Your task to perform on an android device: Do I have any events this weekend? Image 0: 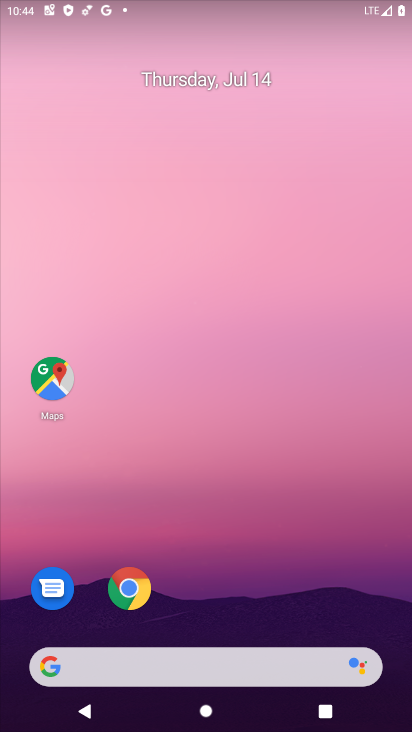
Step 0: click (149, 664)
Your task to perform on an android device: Do I have any events this weekend? Image 1: 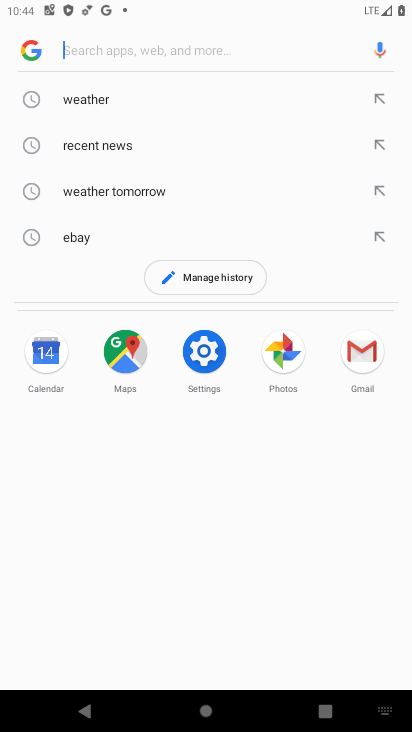
Step 1: click (45, 352)
Your task to perform on an android device: Do I have any events this weekend? Image 2: 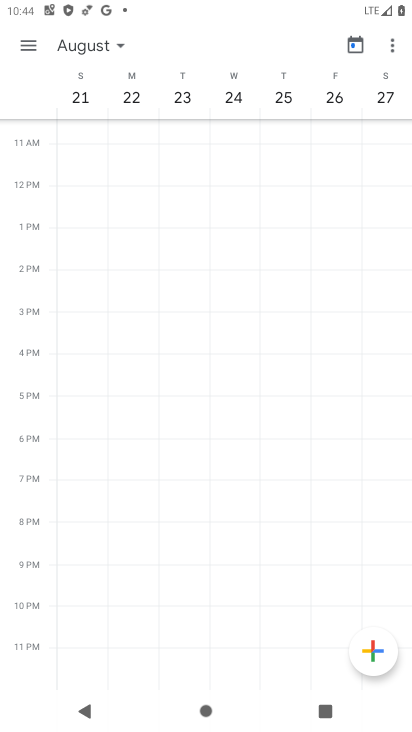
Step 2: click (75, 41)
Your task to perform on an android device: Do I have any events this weekend? Image 3: 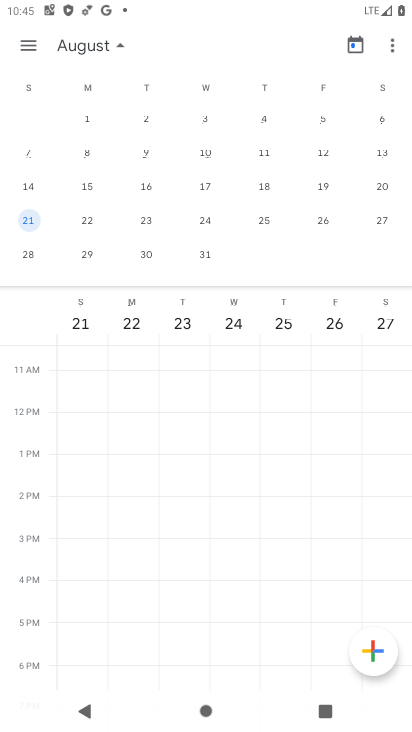
Step 3: drag from (82, 191) to (405, 158)
Your task to perform on an android device: Do I have any events this weekend? Image 4: 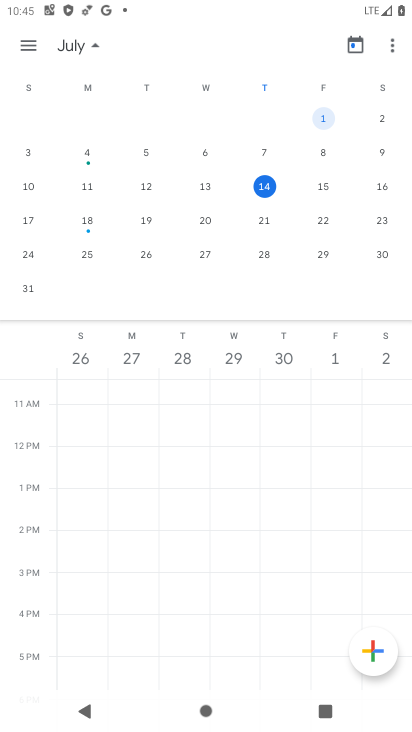
Step 4: click (265, 183)
Your task to perform on an android device: Do I have any events this weekend? Image 5: 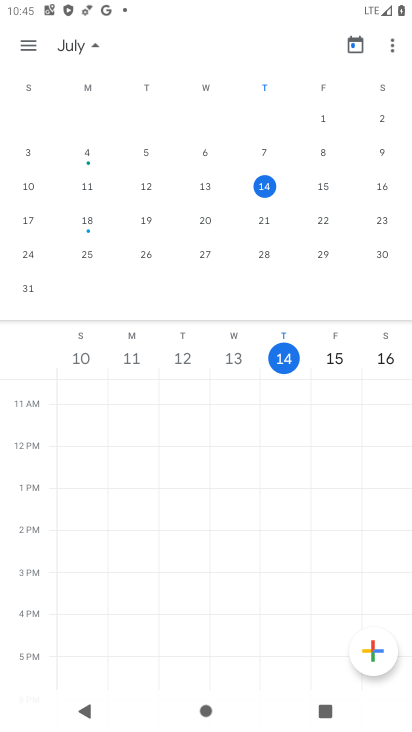
Step 5: click (19, 51)
Your task to perform on an android device: Do I have any events this weekend? Image 6: 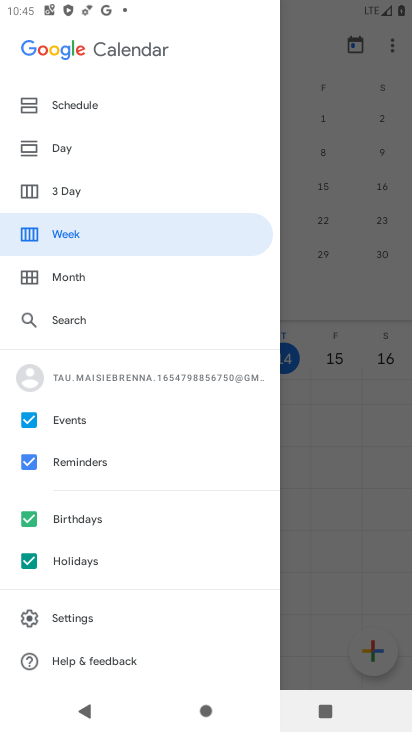
Step 6: click (90, 106)
Your task to perform on an android device: Do I have any events this weekend? Image 7: 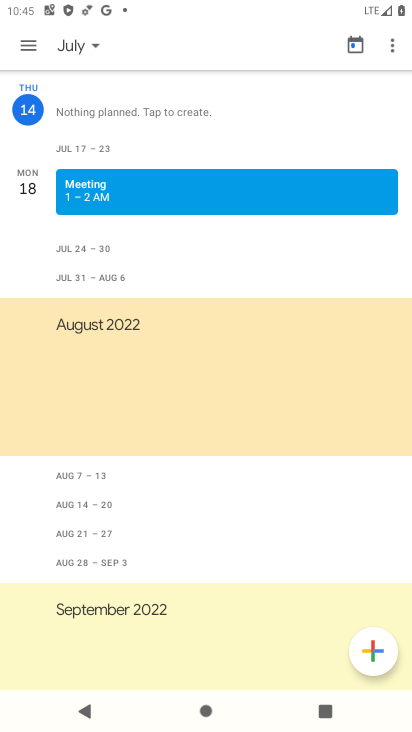
Step 7: task complete